Your task to perform on an android device: uninstall "Google Play services" Image 0: 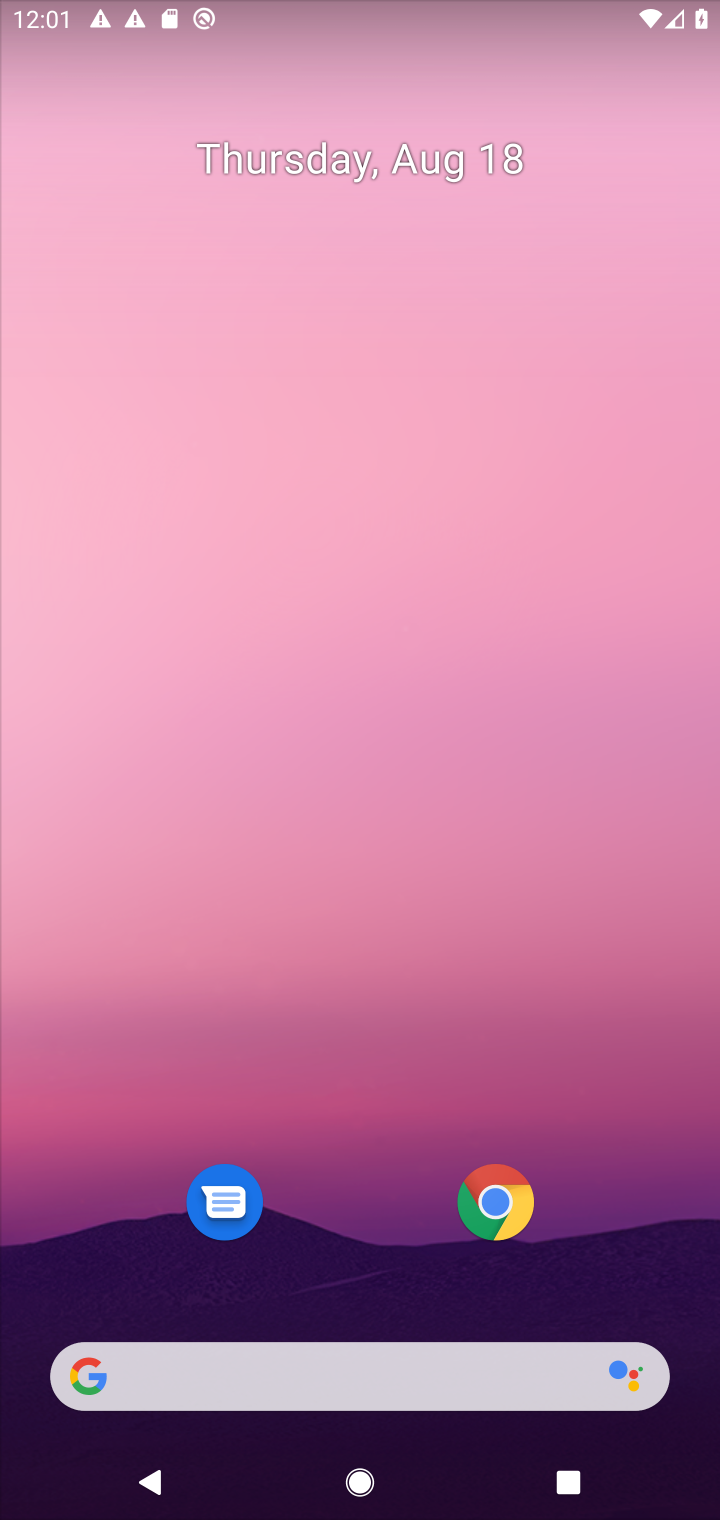
Step 0: drag from (382, 1312) to (222, 256)
Your task to perform on an android device: uninstall "Google Play services" Image 1: 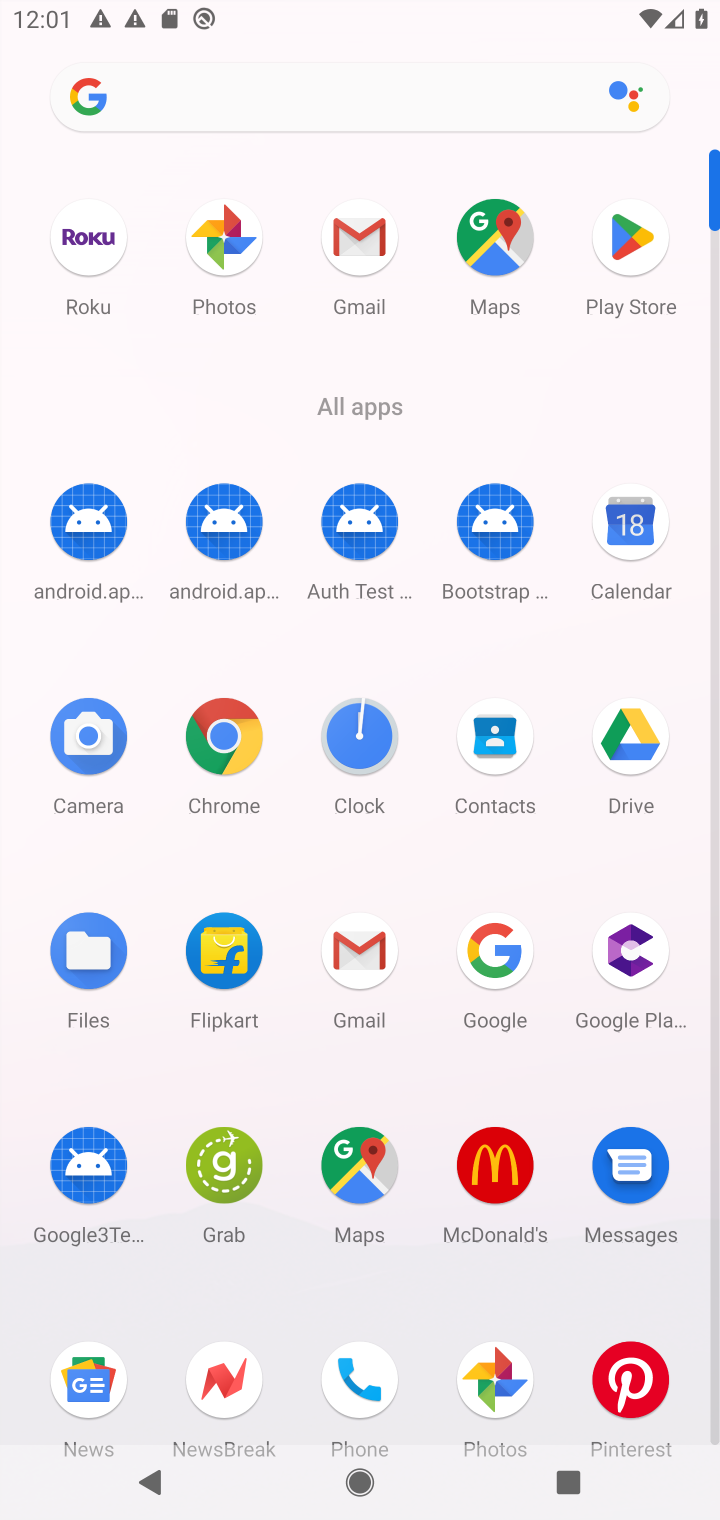
Step 1: click (613, 235)
Your task to perform on an android device: uninstall "Google Play services" Image 2: 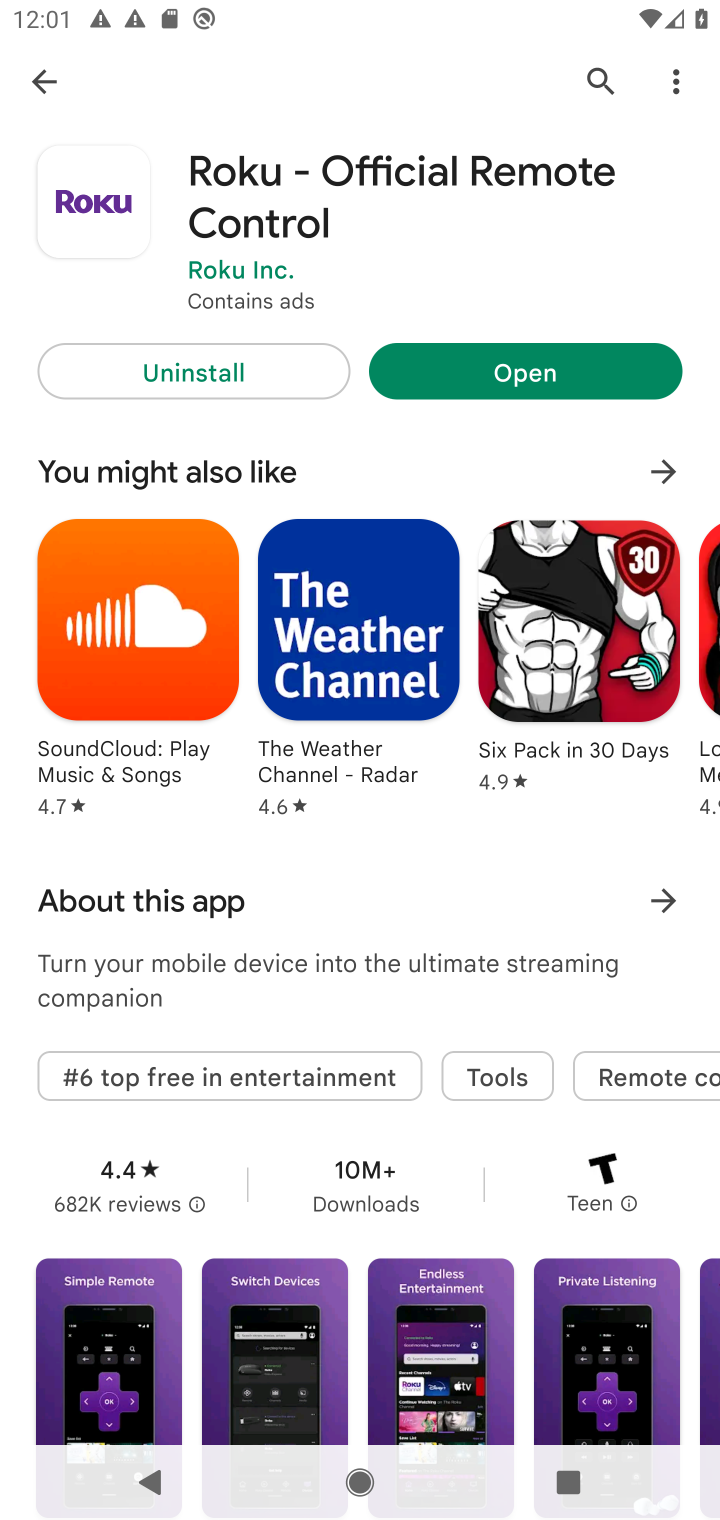
Step 2: click (30, 84)
Your task to perform on an android device: uninstall "Google Play services" Image 3: 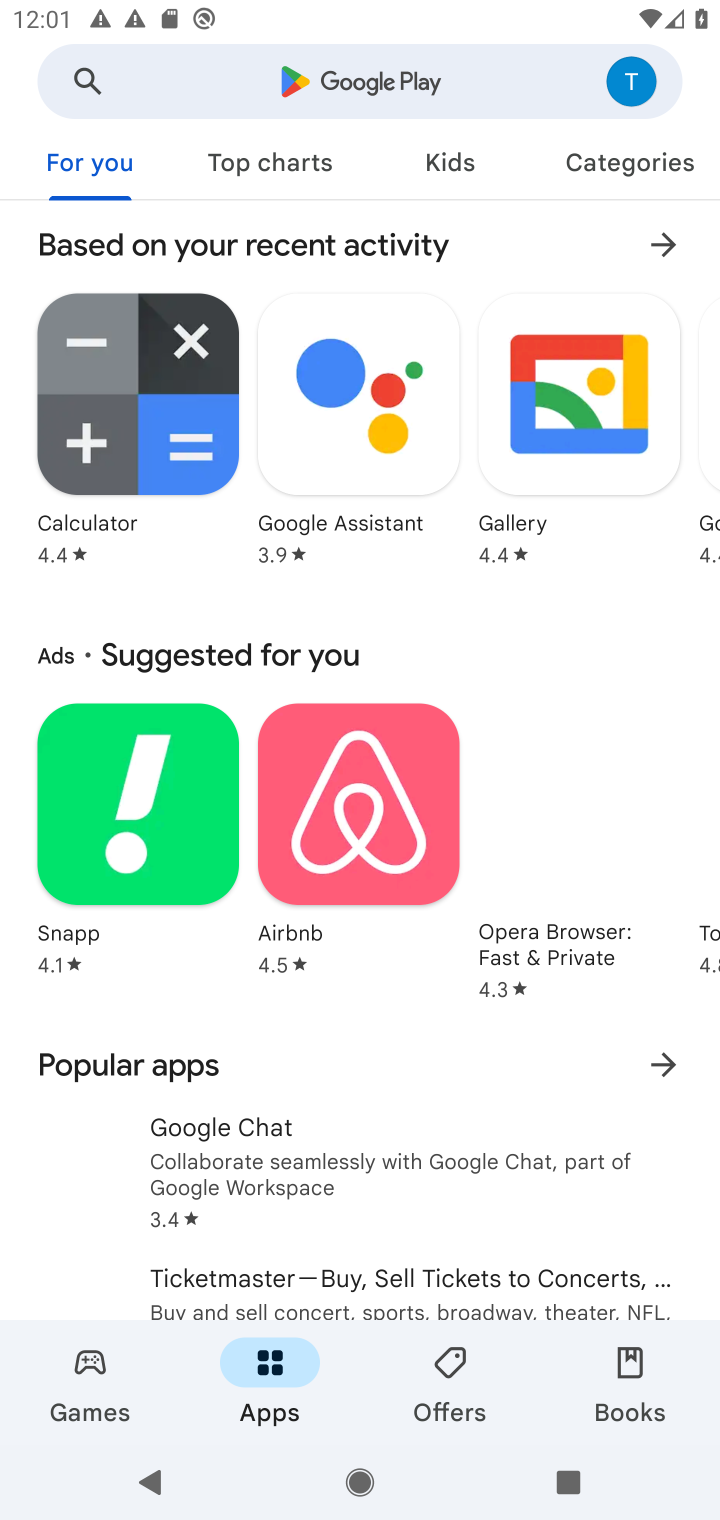
Step 3: click (193, 109)
Your task to perform on an android device: uninstall "Google Play services" Image 4: 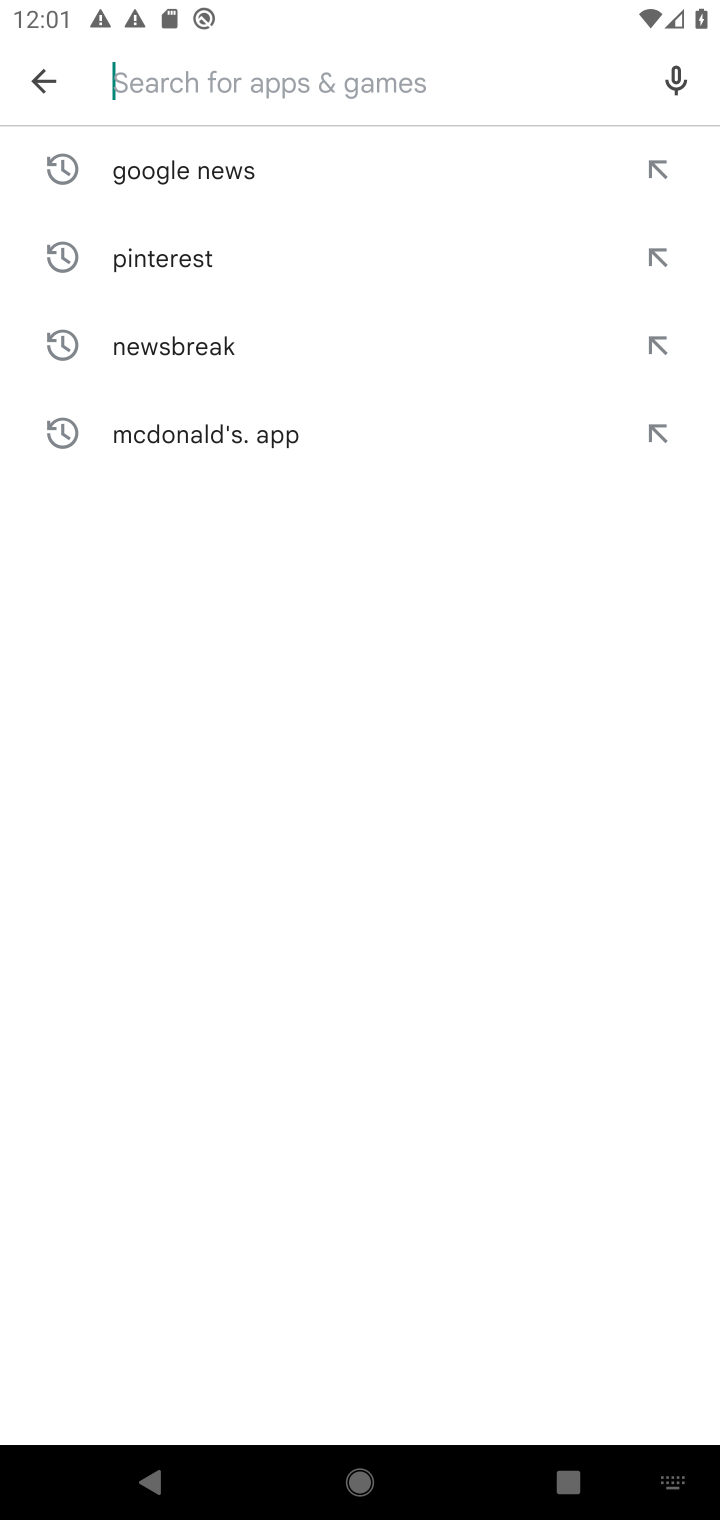
Step 4: type "Google Play services"
Your task to perform on an android device: uninstall "Google Play services" Image 5: 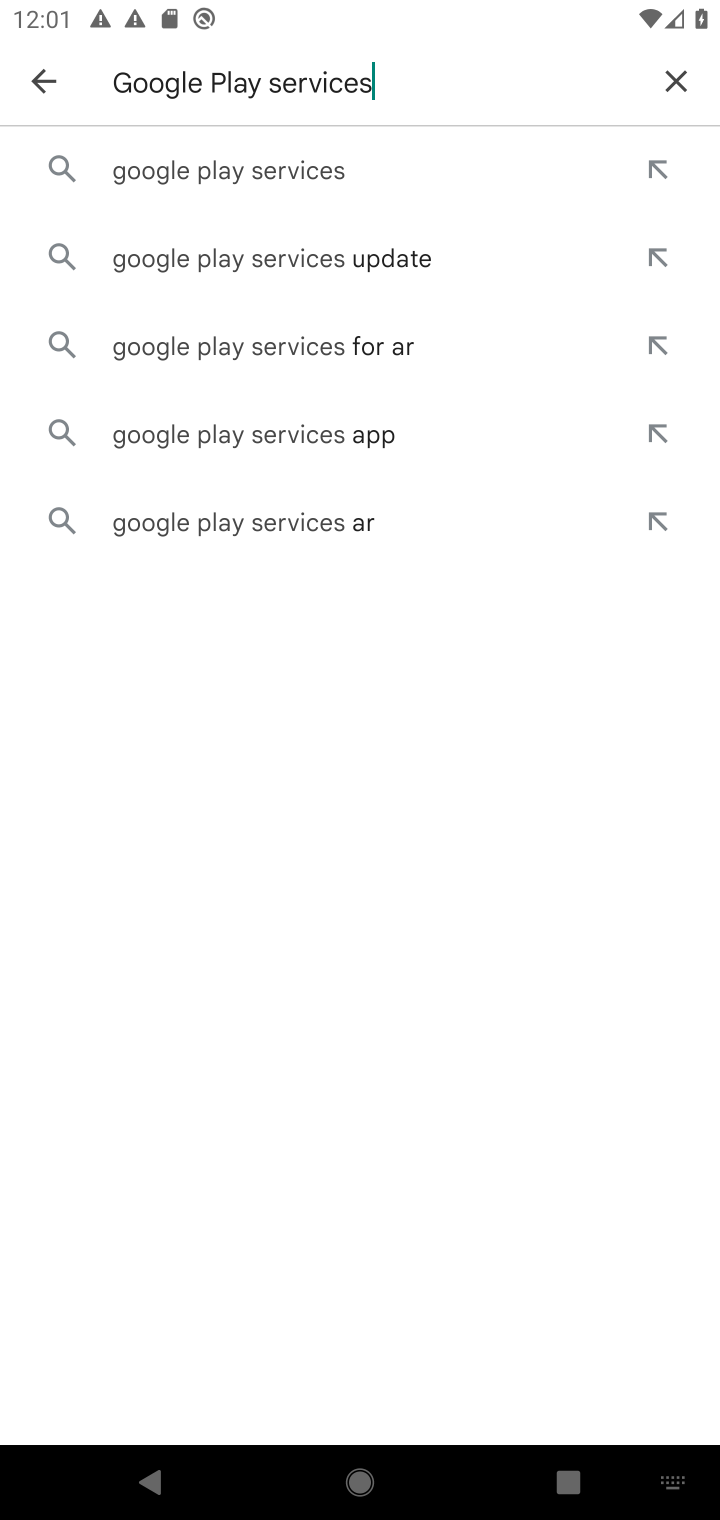
Step 5: click (222, 152)
Your task to perform on an android device: uninstall "Google Play services" Image 6: 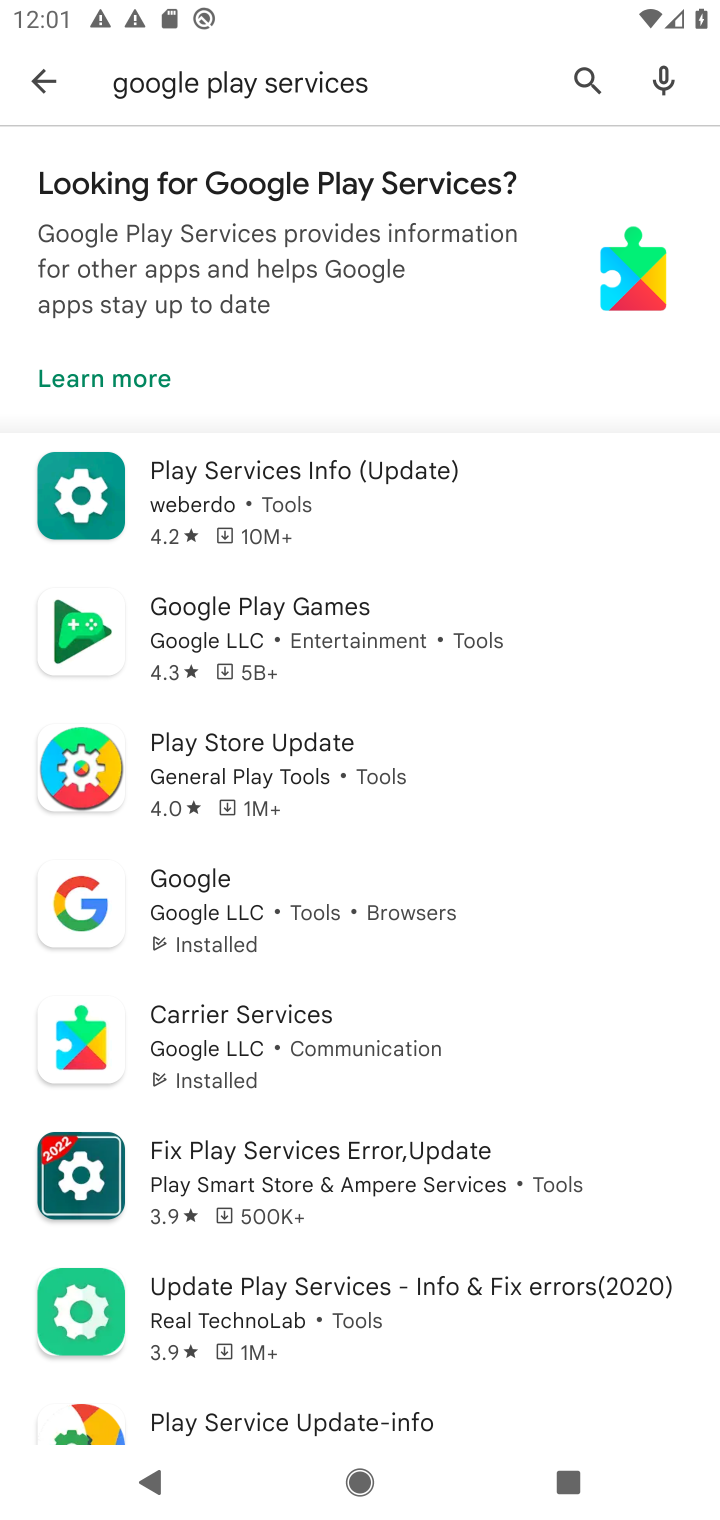
Step 6: task complete